Your task to perform on an android device: Turn off the flashlight Image 0: 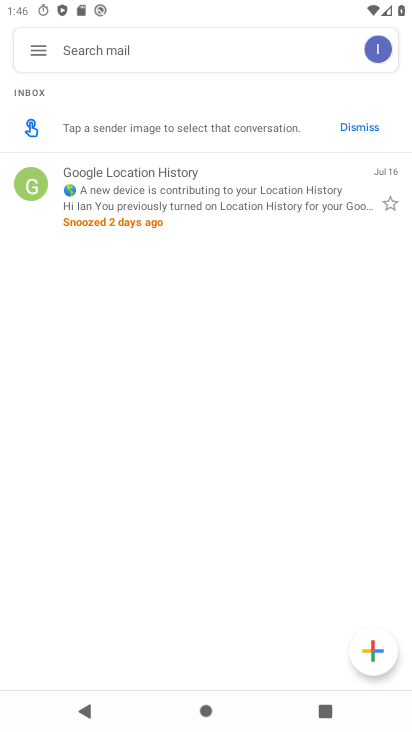
Step 0: press home button
Your task to perform on an android device: Turn off the flashlight Image 1: 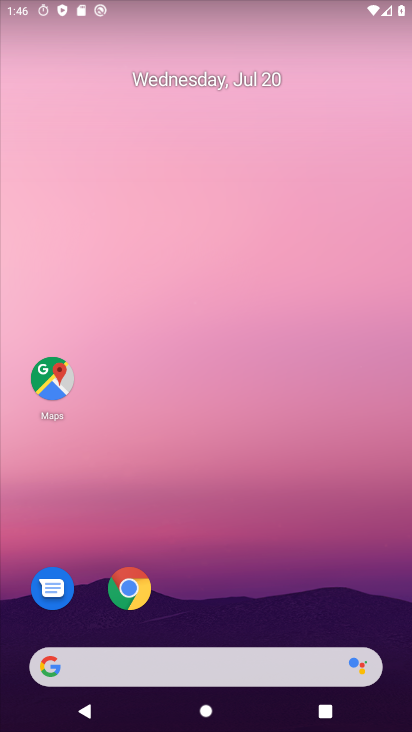
Step 1: task complete